Your task to perform on an android device: Go to battery settings Image 0: 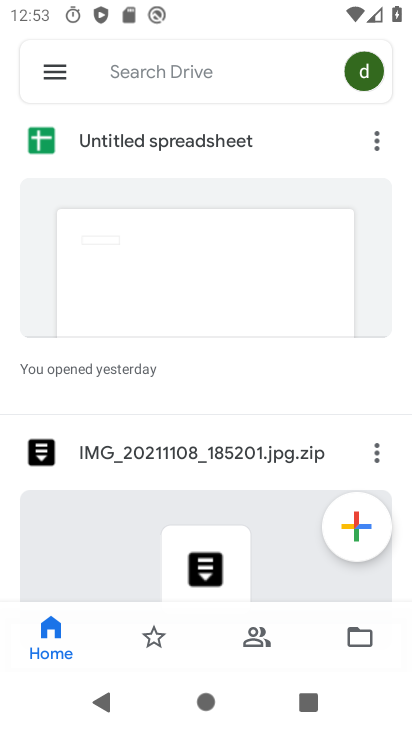
Step 0: press back button
Your task to perform on an android device: Go to battery settings Image 1: 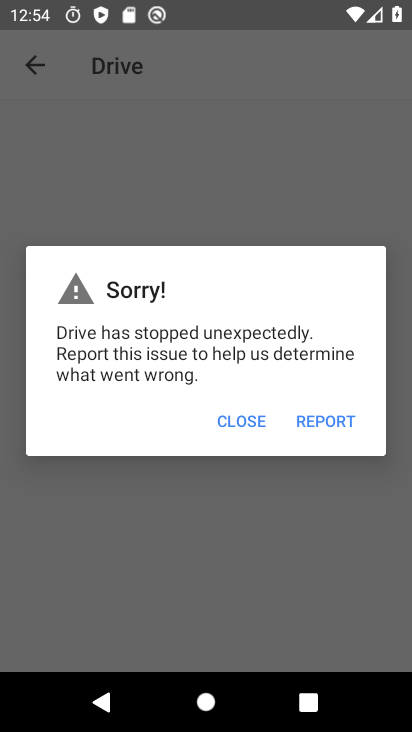
Step 1: press back button
Your task to perform on an android device: Go to battery settings Image 2: 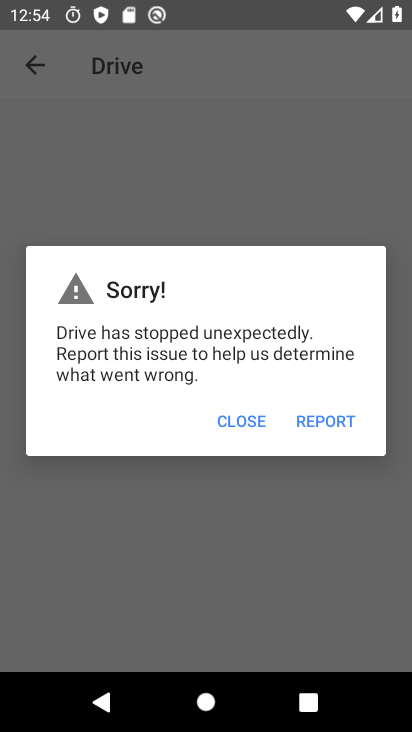
Step 2: press home button
Your task to perform on an android device: Go to battery settings Image 3: 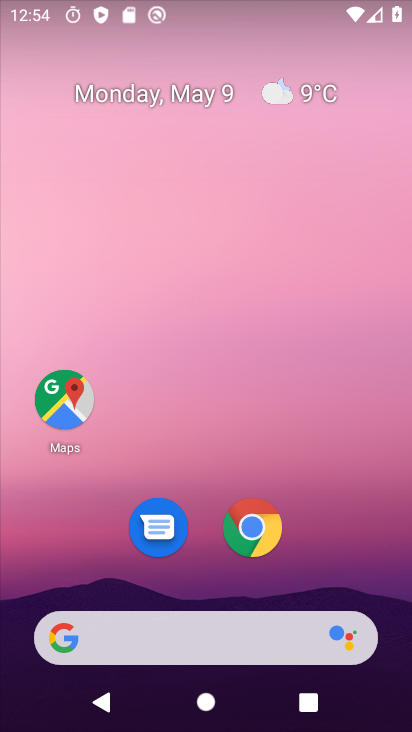
Step 3: drag from (201, 570) to (288, 96)
Your task to perform on an android device: Go to battery settings Image 4: 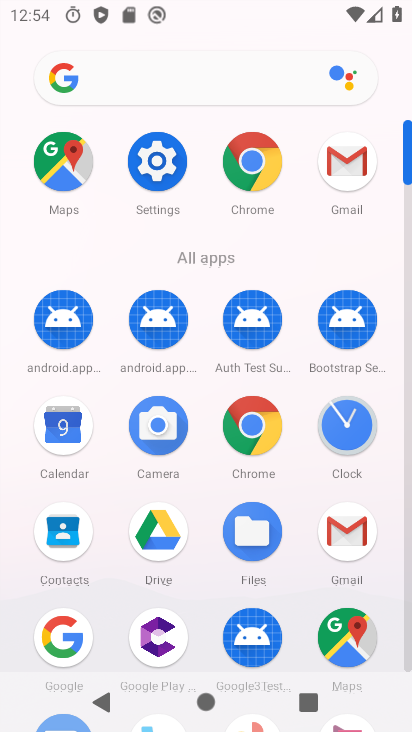
Step 4: click (164, 154)
Your task to perform on an android device: Go to battery settings Image 5: 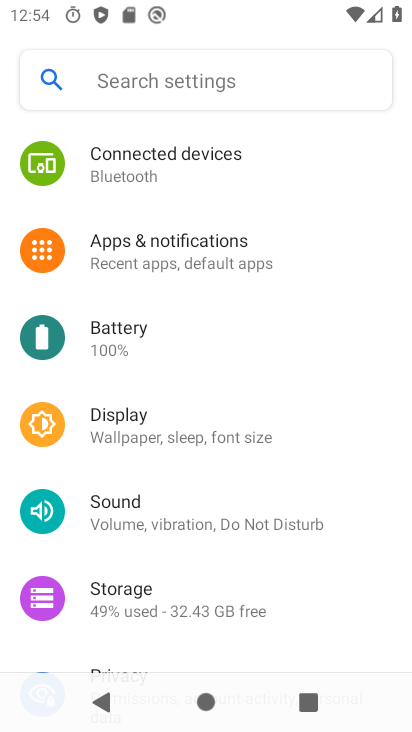
Step 5: click (106, 316)
Your task to perform on an android device: Go to battery settings Image 6: 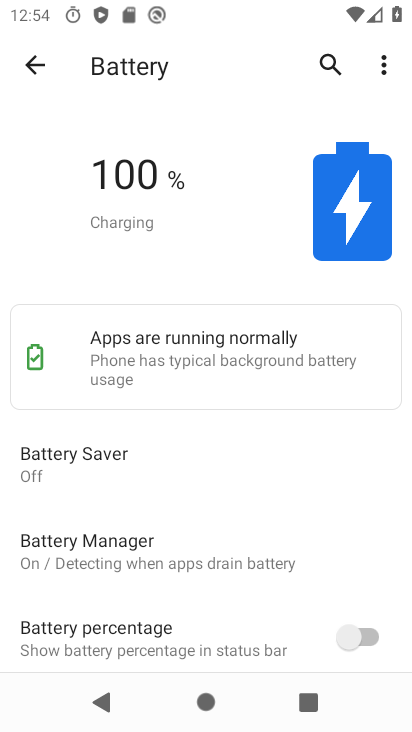
Step 6: task complete